Your task to perform on an android device: Open the phone app and click the voicemail tab. Image 0: 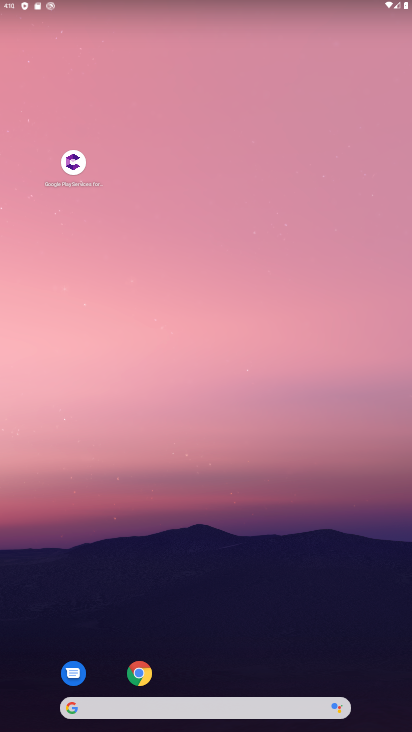
Step 0: drag from (163, 163) to (154, 233)
Your task to perform on an android device: Open the phone app and click the voicemail tab. Image 1: 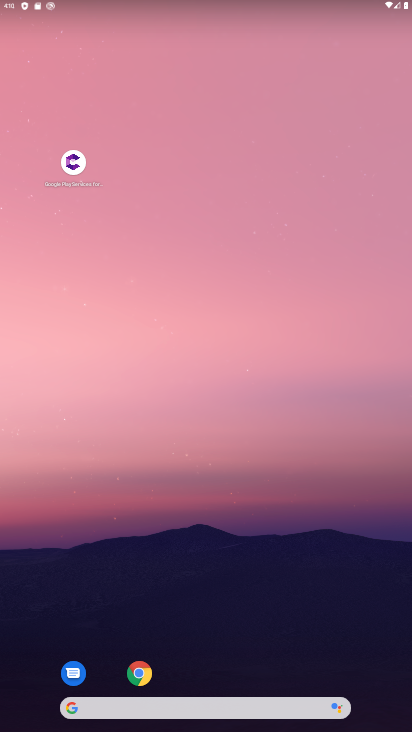
Step 1: drag from (304, 582) to (190, 280)
Your task to perform on an android device: Open the phone app and click the voicemail tab. Image 2: 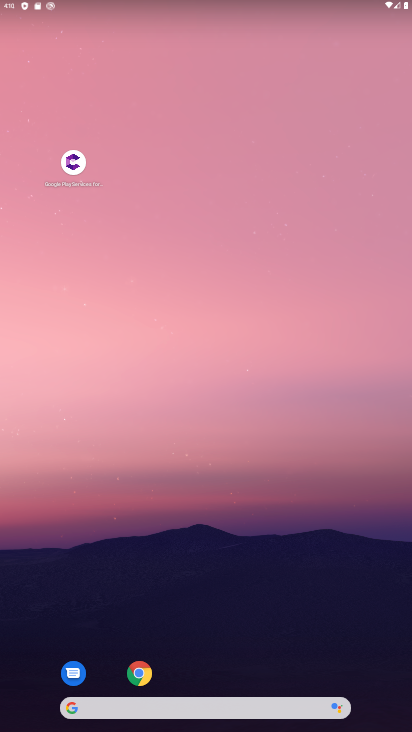
Step 2: drag from (248, 576) to (62, 79)
Your task to perform on an android device: Open the phone app and click the voicemail tab. Image 3: 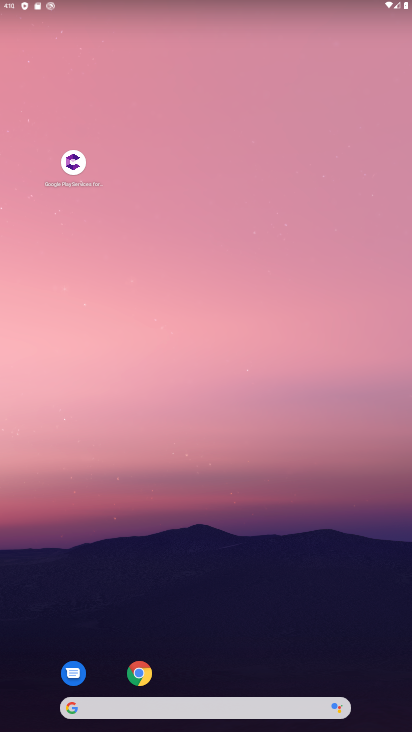
Step 3: drag from (181, 412) to (144, 23)
Your task to perform on an android device: Open the phone app and click the voicemail tab. Image 4: 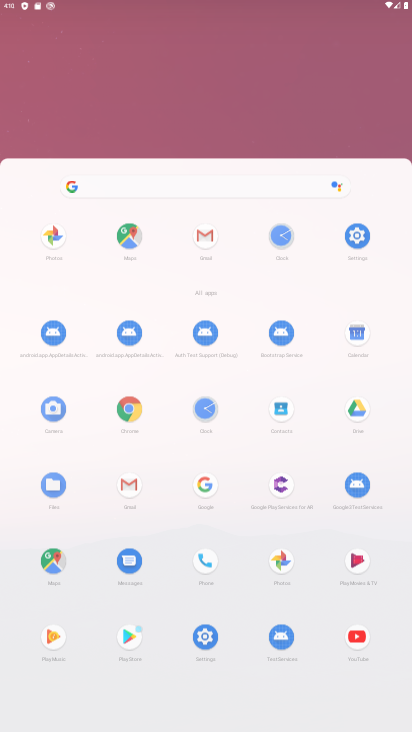
Step 4: click (179, 154)
Your task to perform on an android device: Open the phone app and click the voicemail tab. Image 5: 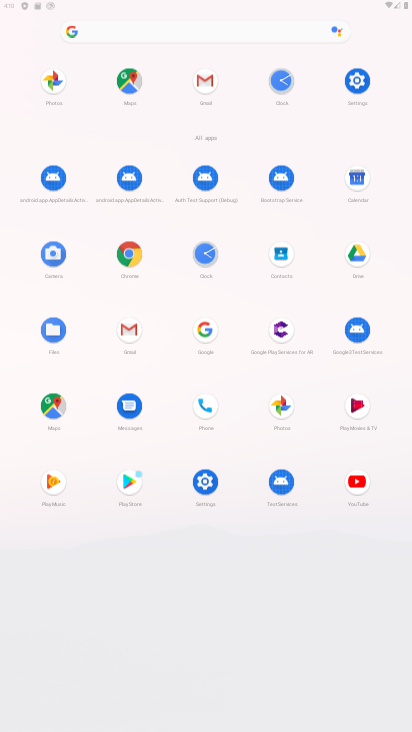
Step 5: drag from (260, 482) to (215, 60)
Your task to perform on an android device: Open the phone app and click the voicemail tab. Image 6: 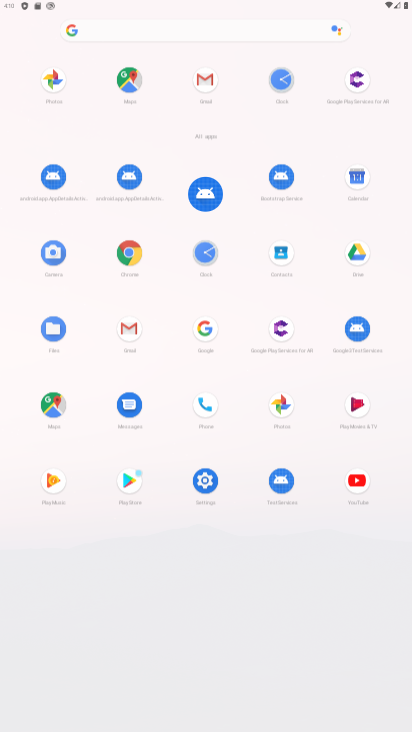
Step 6: click (204, 406)
Your task to perform on an android device: Open the phone app and click the voicemail tab. Image 7: 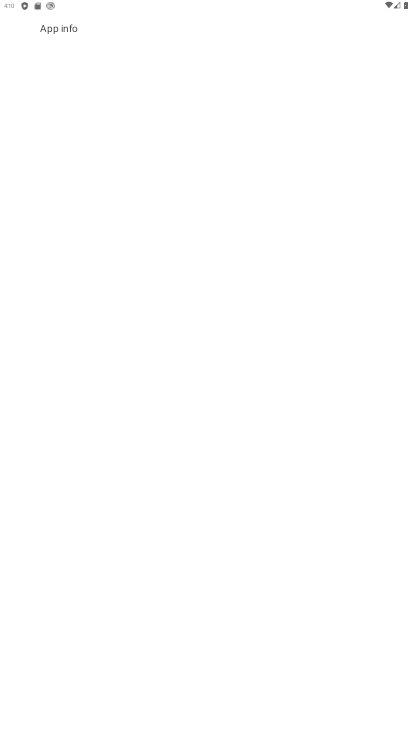
Step 7: click (210, 400)
Your task to perform on an android device: Open the phone app and click the voicemail tab. Image 8: 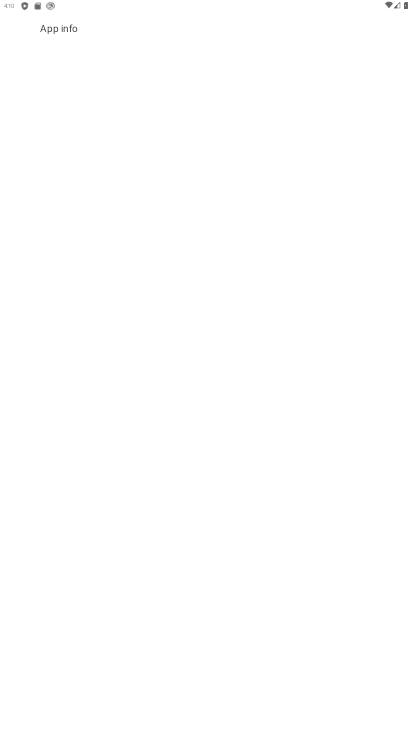
Step 8: click (210, 401)
Your task to perform on an android device: Open the phone app and click the voicemail tab. Image 9: 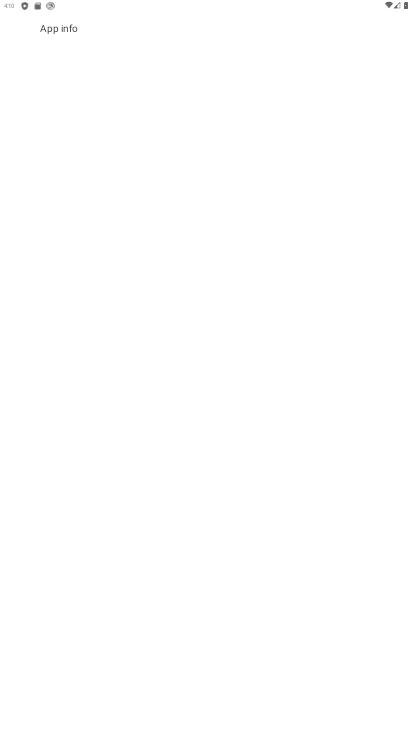
Step 9: click (210, 401)
Your task to perform on an android device: Open the phone app and click the voicemail tab. Image 10: 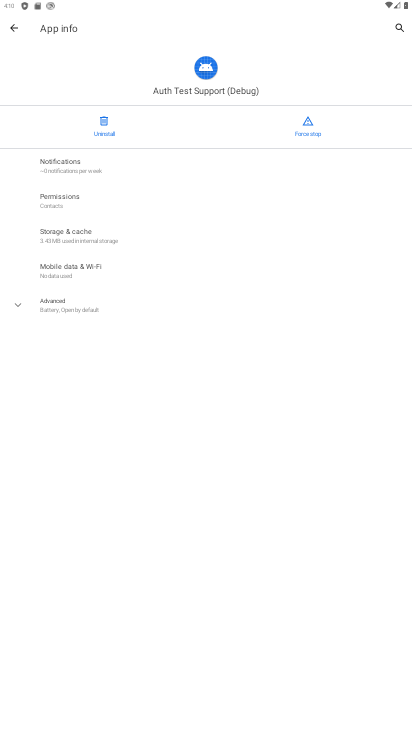
Step 10: click (11, 25)
Your task to perform on an android device: Open the phone app and click the voicemail tab. Image 11: 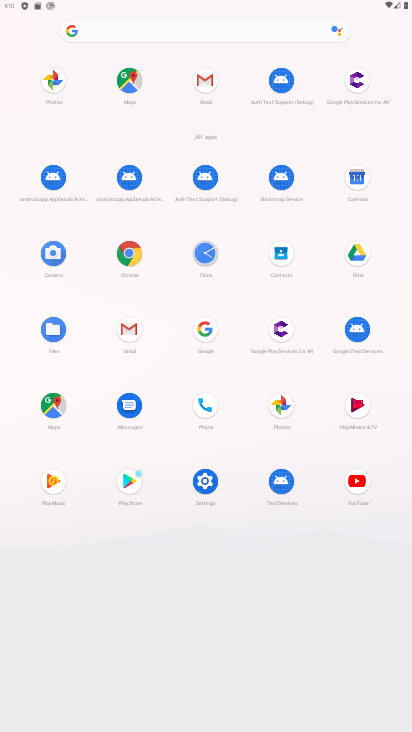
Step 11: click (197, 409)
Your task to perform on an android device: Open the phone app and click the voicemail tab. Image 12: 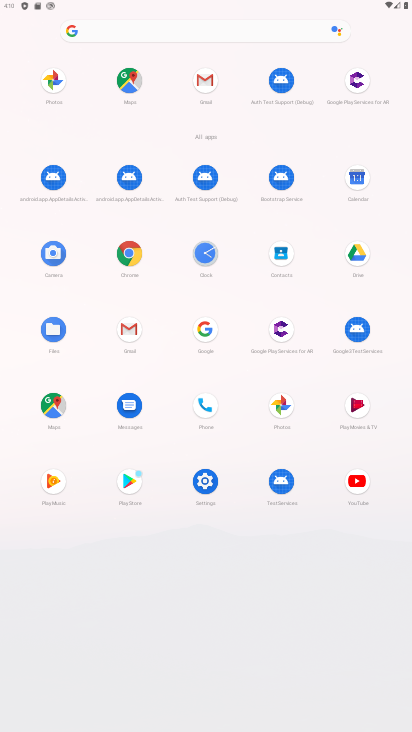
Step 12: click (200, 408)
Your task to perform on an android device: Open the phone app and click the voicemail tab. Image 13: 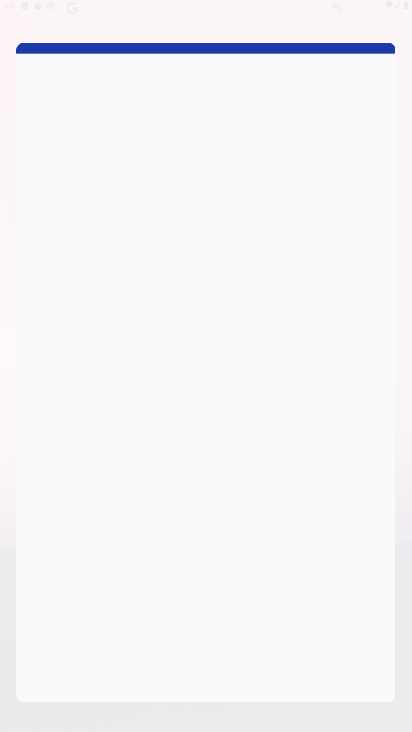
Step 13: click (206, 408)
Your task to perform on an android device: Open the phone app and click the voicemail tab. Image 14: 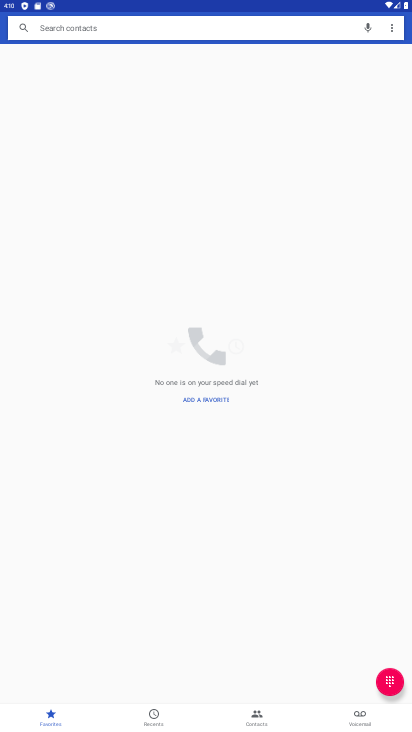
Step 14: click (361, 717)
Your task to perform on an android device: Open the phone app and click the voicemail tab. Image 15: 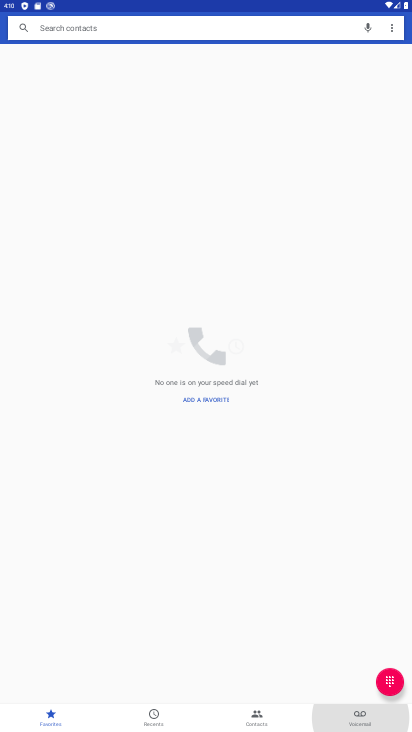
Step 15: click (360, 709)
Your task to perform on an android device: Open the phone app and click the voicemail tab. Image 16: 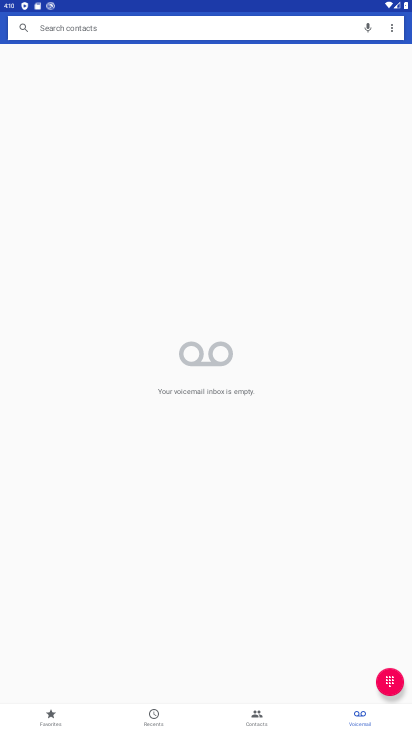
Step 16: task complete